Your task to perform on an android device: check out phone information Image 0: 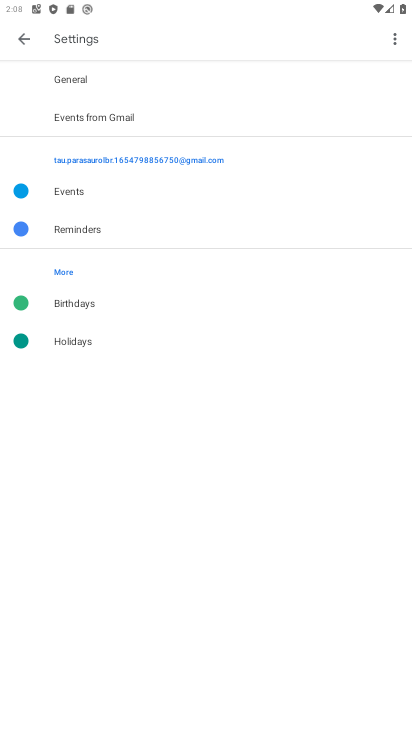
Step 0: press home button
Your task to perform on an android device: check out phone information Image 1: 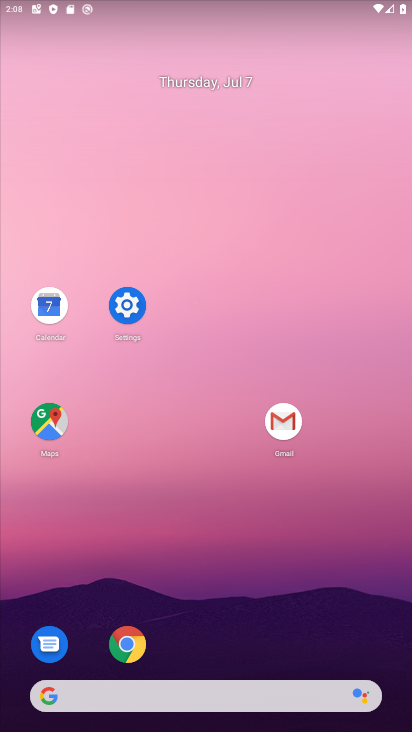
Step 1: drag from (404, 700) to (373, 193)
Your task to perform on an android device: check out phone information Image 2: 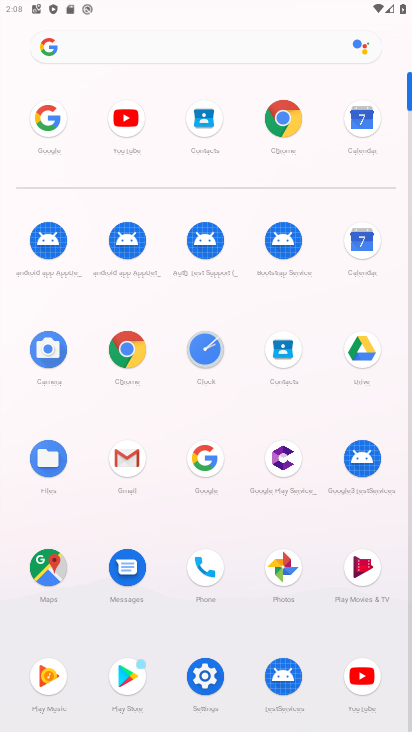
Step 2: click (213, 666)
Your task to perform on an android device: check out phone information Image 3: 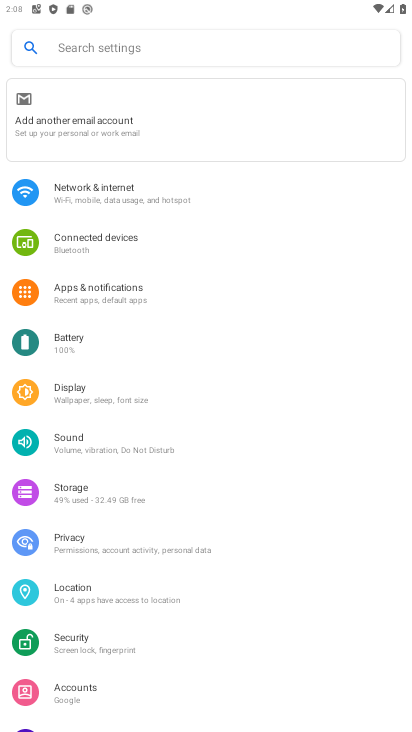
Step 3: drag from (176, 685) to (178, 330)
Your task to perform on an android device: check out phone information Image 4: 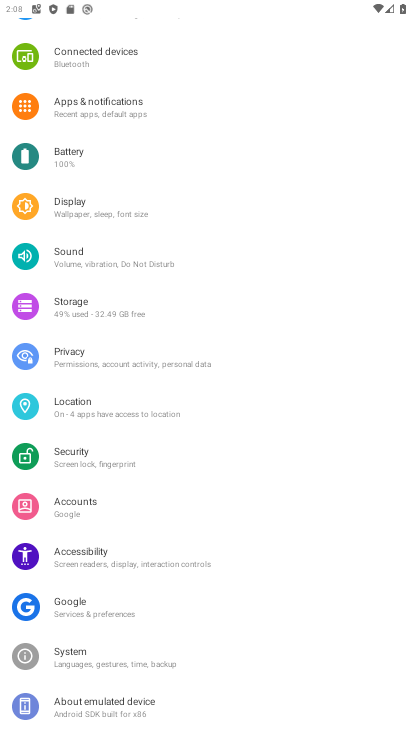
Step 4: click (84, 706)
Your task to perform on an android device: check out phone information Image 5: 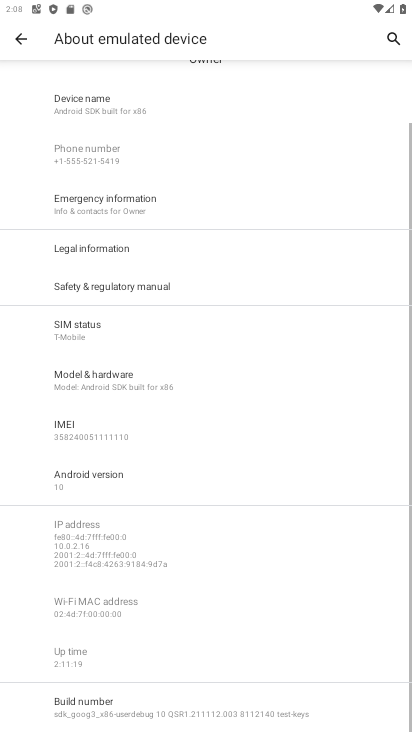
Step 5: click (109, 366)
Your task to perform on an android device: check out phone information Image 6: 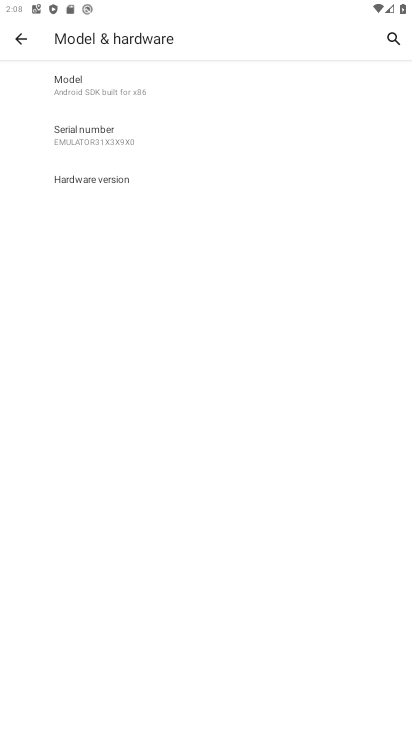
Step 6: task complete